Your task to perform on an android device: turn off priority inbox in the gmail app Image 0: 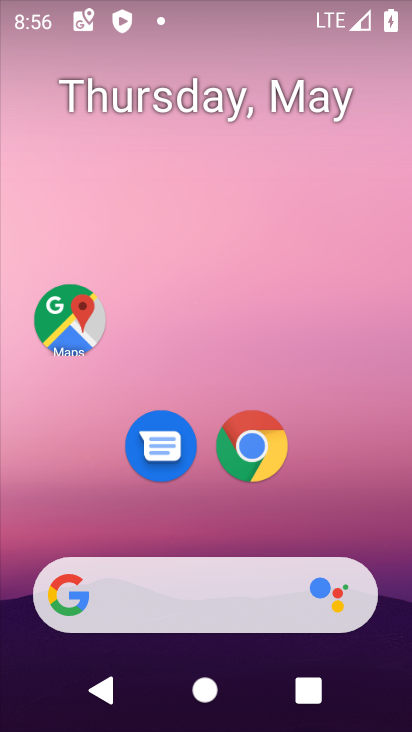
Step 0: drag from (378, 528) to (350, 184)
Your task to perform on an android device: turn off priority inbox in the gmail app Image 1: 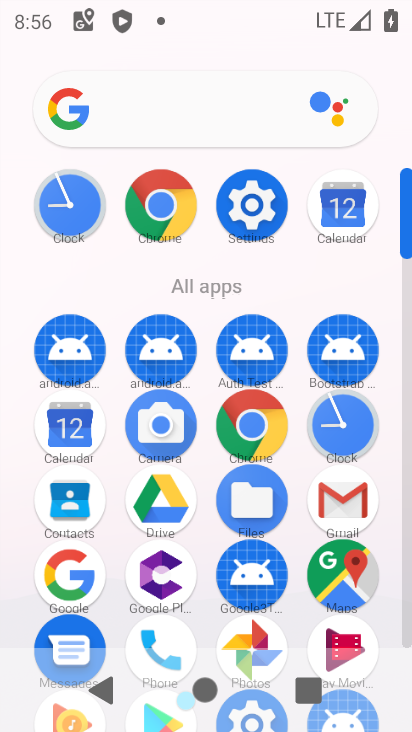
Step 1: click (406, 628)
Your task to perform on an android device: turn off priority inbox in the gmail app Image 2: 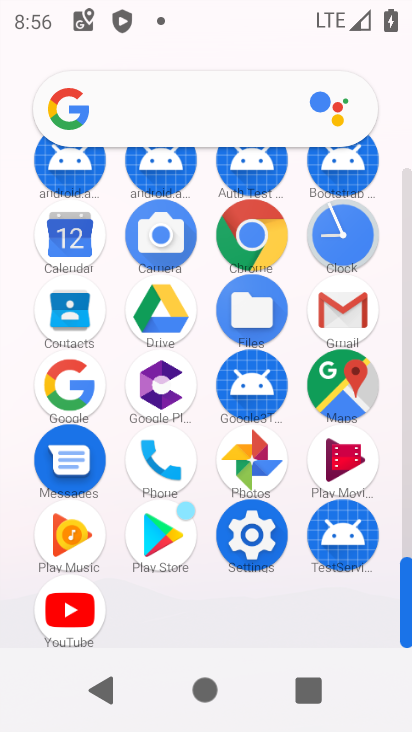
Step 2: click (349, 300)
Your task to perform on an android device: turn off priority inbox in the gmail app Image 3: 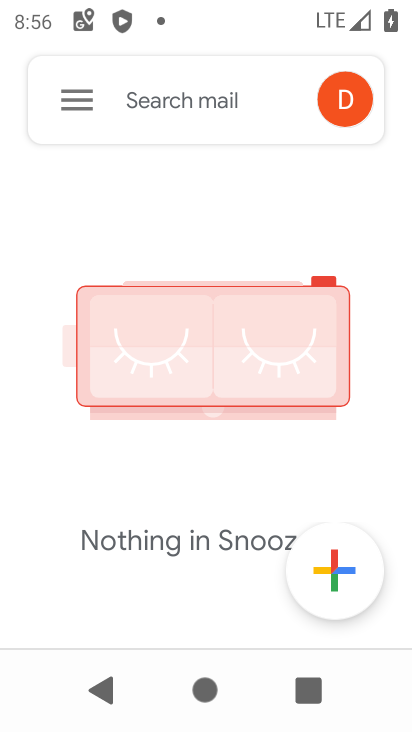
Step 3: click (67, 100)
Your task to perform on an android device: turn off priority inbox in the gmail app Image 4: 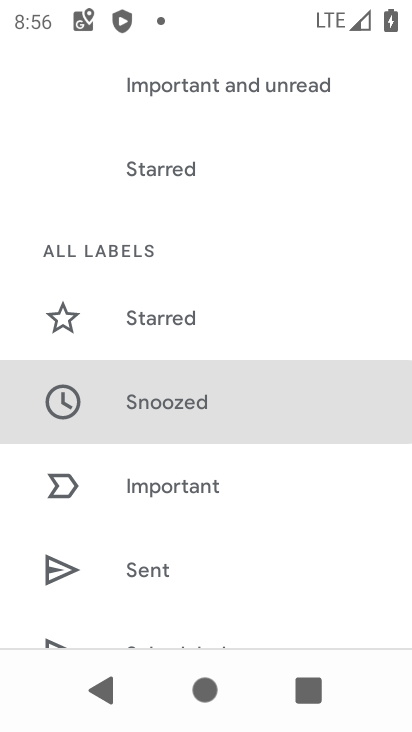
Step 4: drag from (228, 595) to (262, 143)
Your task to perform on an android device: turn off priority inbox in the gmail app Image 5: 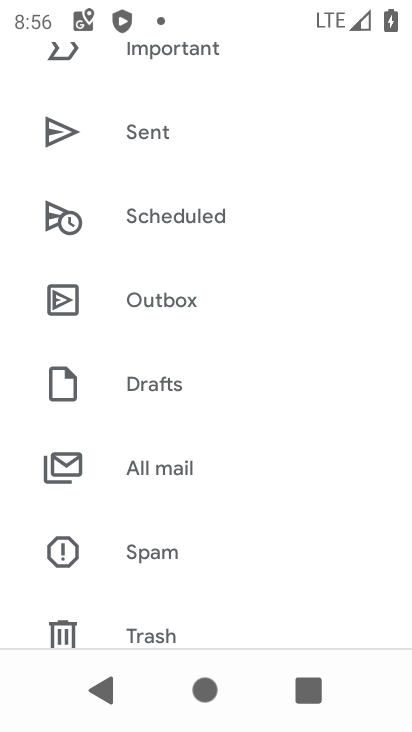
Step 5: drag from (254, 594) to (327, 0)
Your task to perform on an android device: turn off priority inbox in the gmail app Image 6: 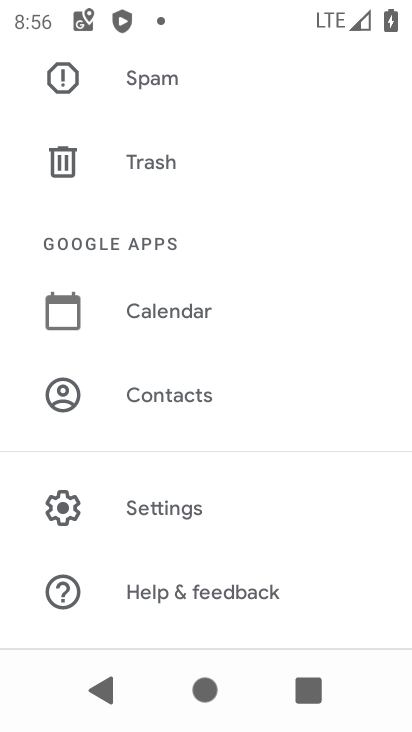
Step 6: click (166, 497)
Your task to perform on an android device: turn off priority inbox in the gmail app Image 7: 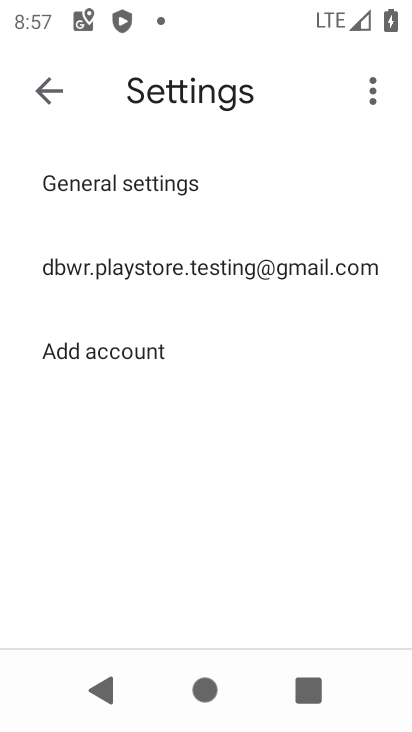
Step 7: click (165, 246)
Your task to perform on an android device: turn off priority inbox in the gmail app Image 8: 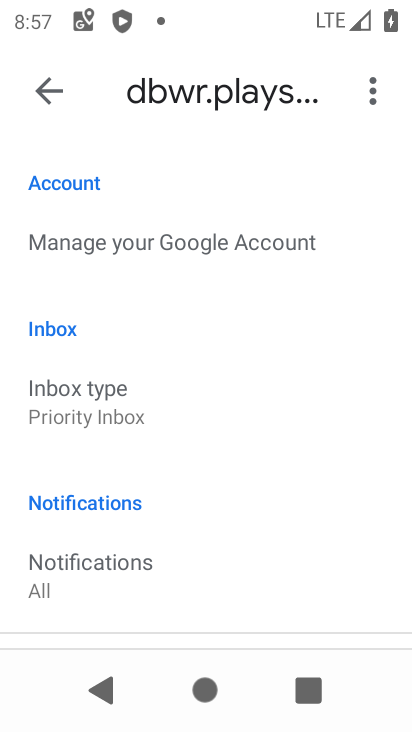
Step 8: drag from (210, 574) to (252, 237)
Your task to perform on an android device: turn off priority inbox in the gmail app Image 9: 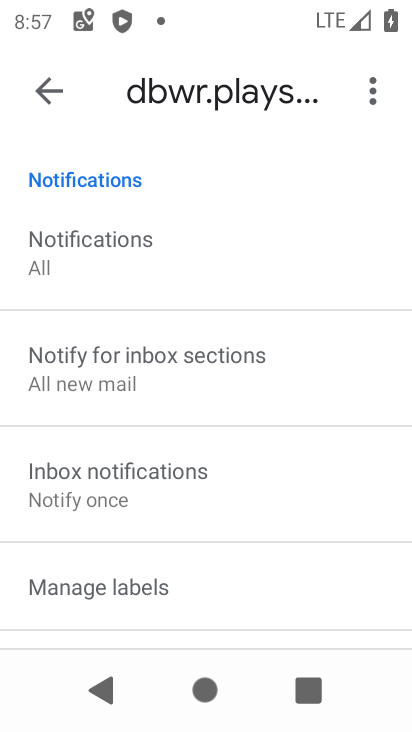
Step 9: drag from (259, 275) to (262, 539)
Your task to perform on an android device: turn off priority inbox in the gmail app Image 10: 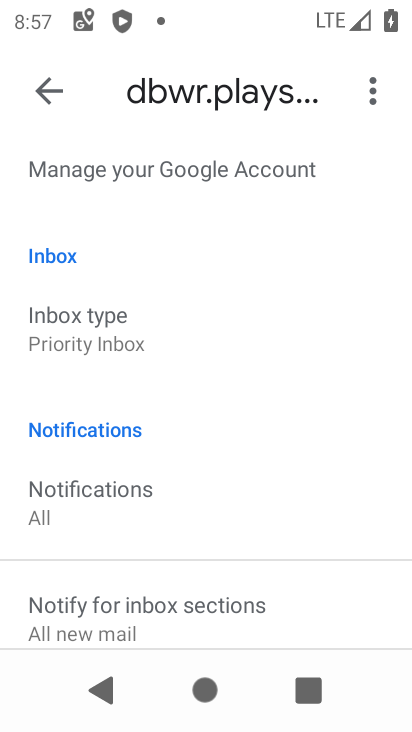
Step 10: click (87, 325)
Your task to perform on an android device: turn off priority inbox in the gmail app Image 11: 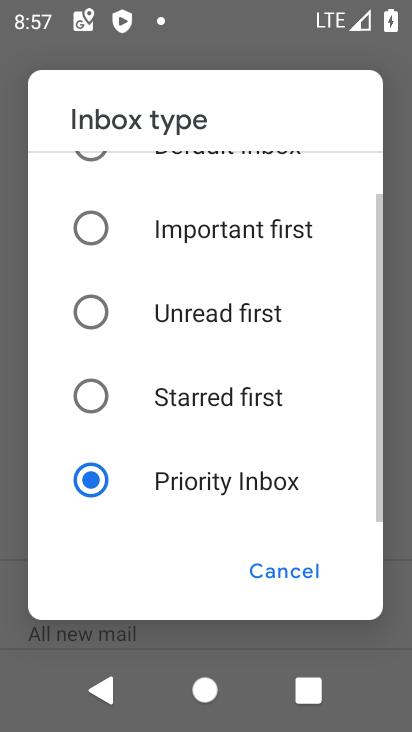
Step 11: drag from (93, 174) to (115, 392)
Your task to perform on an android device: turn off priority inbox in the gmail app Image 12: 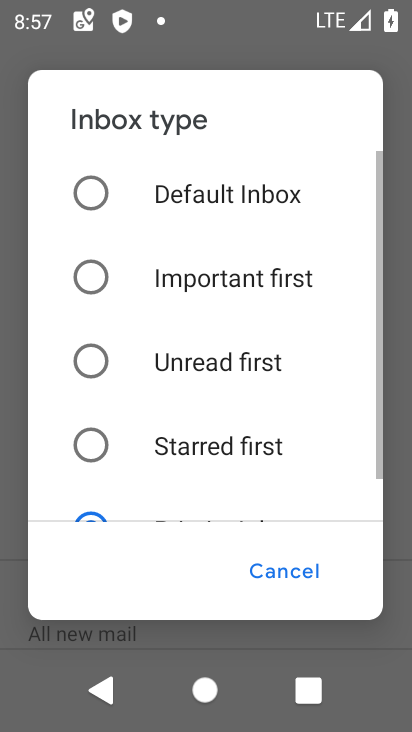
Step 12: click (86, 176)
Your task to perform on an android device: turn off priority inbox in the gmail app Image 13: 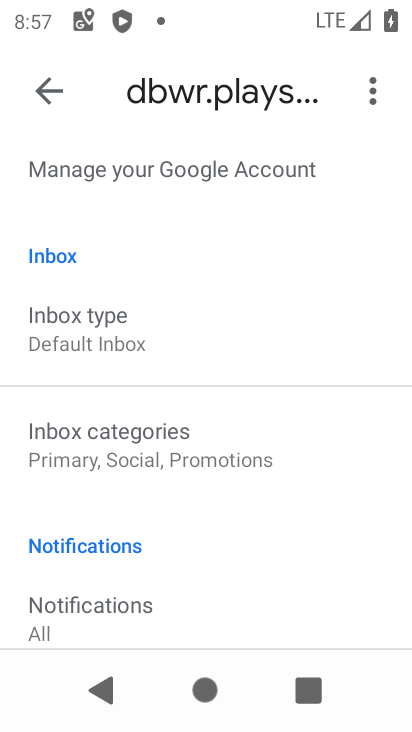
Step 13: task complete